Your task to perform on an android device: turn on wifi Image 0: 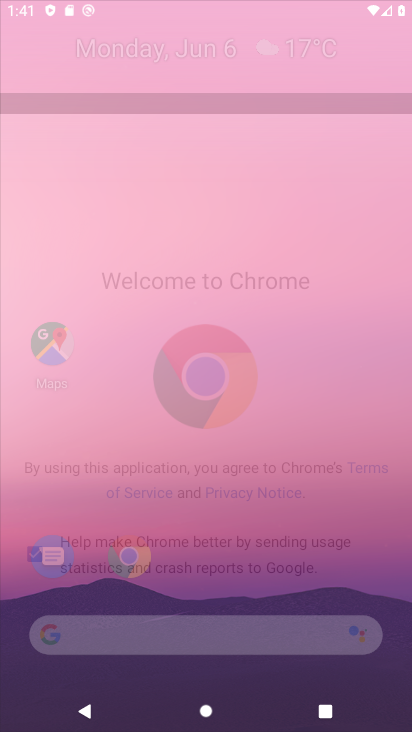
Step 0: press home button
Your task to perform on an android device: turn on wifi Image 1: 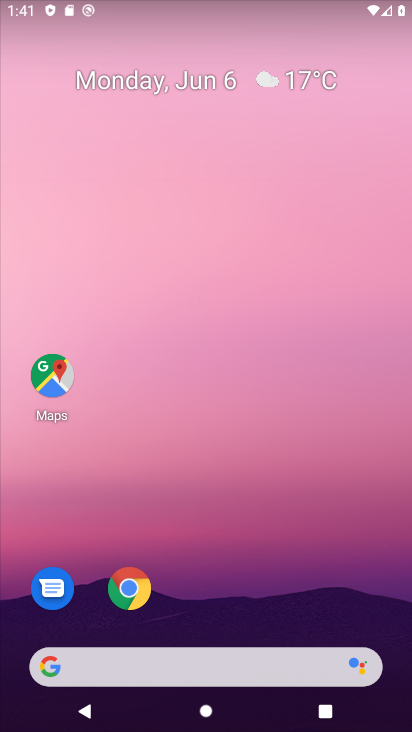
Step 1: drag from (189, 643) to (243, 78)
Your task to perform on an android device: turn on wifi Image 2: 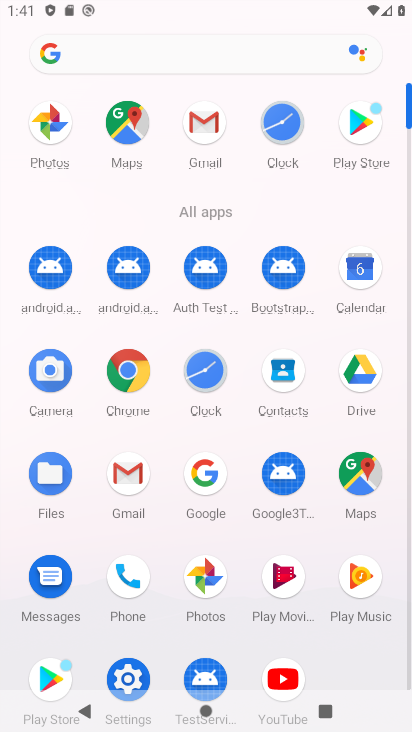
Step 2: click (131, 667)
Your task to perform on an android device: turn on wifi Image 3: 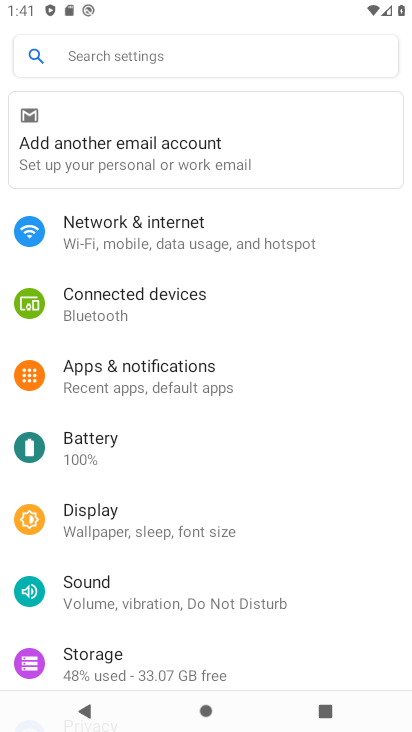
Step 3: click (147, 235)
Your task to perform on an android device: turn on wifi Image 4: 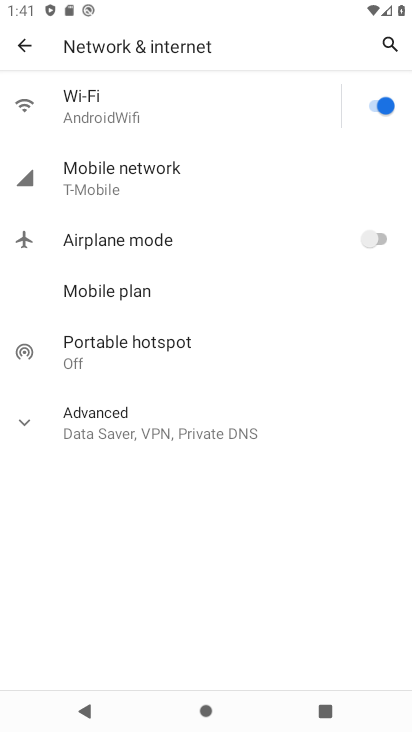
Step 4: task complete